Your task to perform on an android device: refresh tabs in the chrome app Image 0: 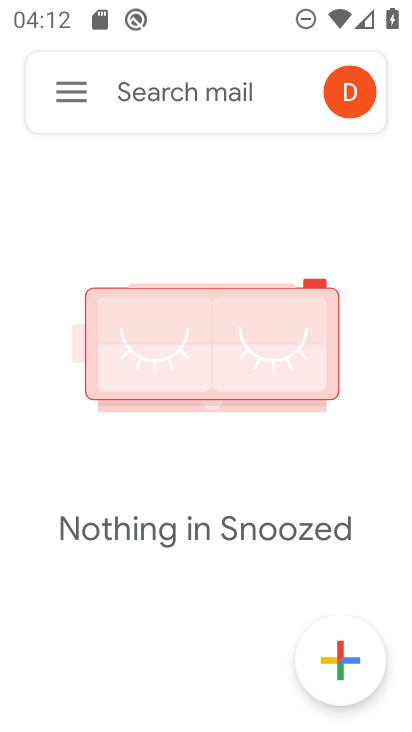
Step 0: press home button
Your task to perform on an android device: refresh tabs in the chrome app Image 1: 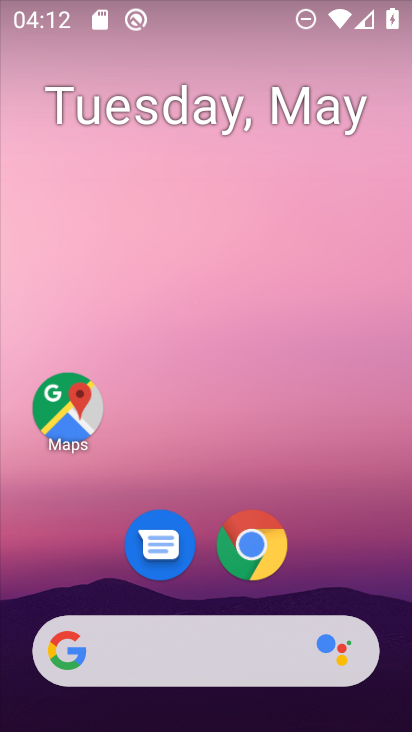
Step 1: click (249, 547)
Your task to perform on an android device: refresh tabs in the chrome app Image 2: 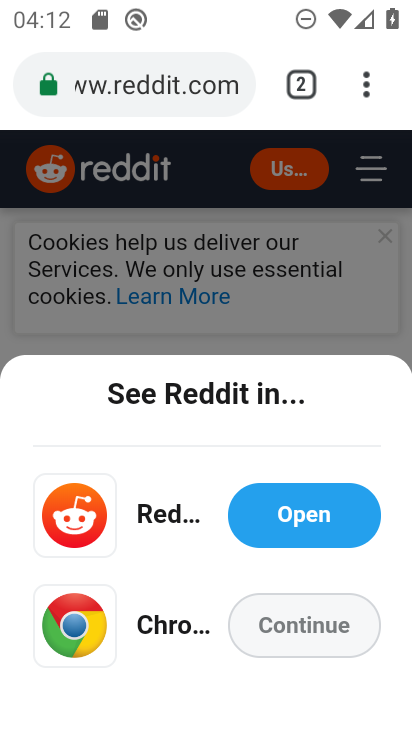
Step 2: click (365, 91)
Your task to perform on an android device: refresh tabs in the chrome app Image 3: 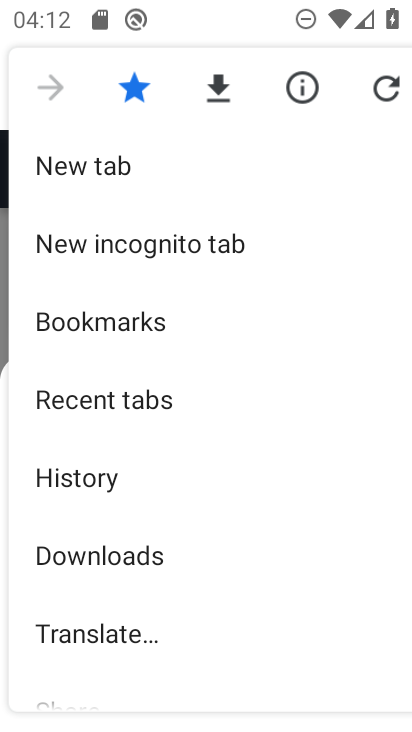
Step 3: click (376, 82)
Your task to perform on an android device: refresh tabs in the chrome app Image 4: 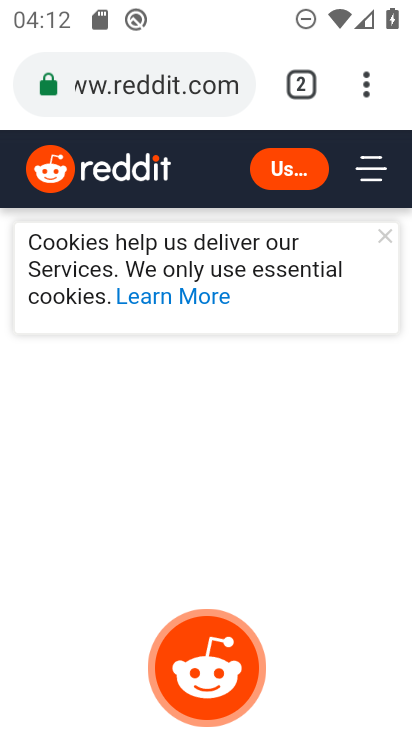
Step 4: task complete